Your task to perform on an android device: find photos in the google photos app Image 0: 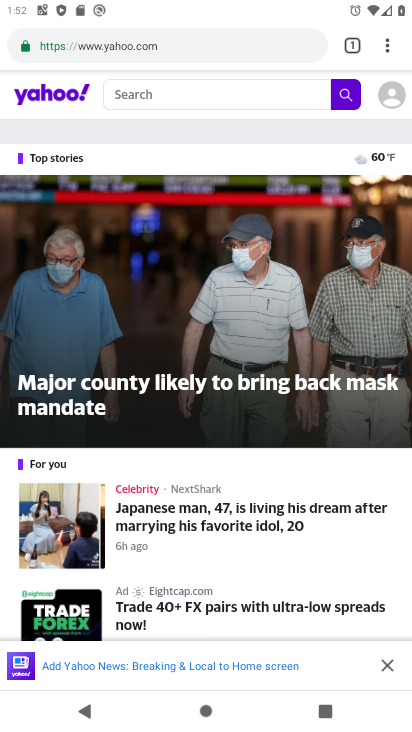
Step 0: press home button
Your task to perform on an android device: find photos in the google photos app Image 1: 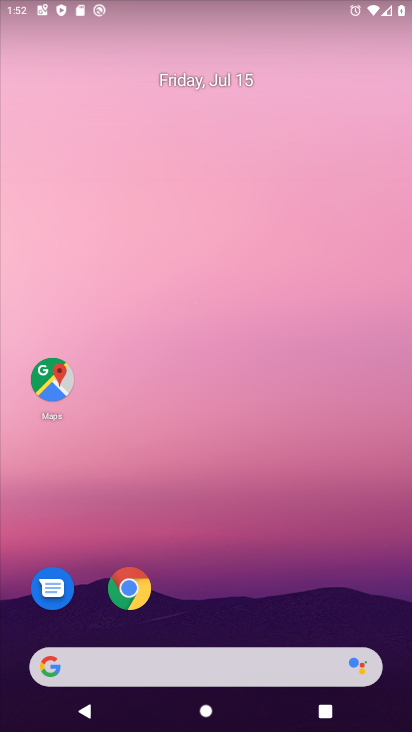
Step 1: drag from (198, 668) to (183, 201)
Your task to perform on an android device: find photos in the google photos app Image 2: 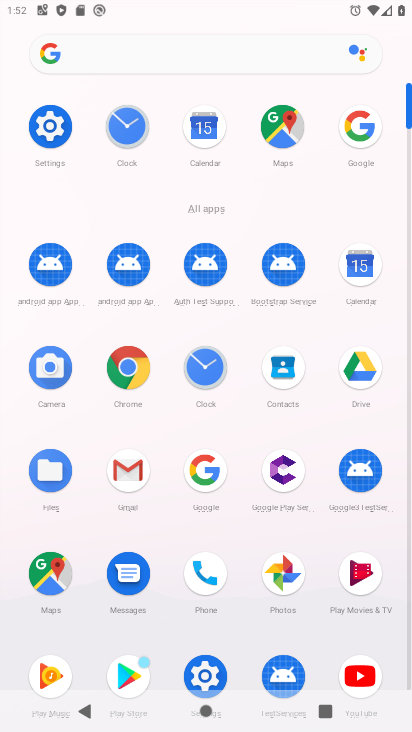
Step 2: click (284, 572)
Your task to perform on an android device: find photos in the google photos app Image 3: 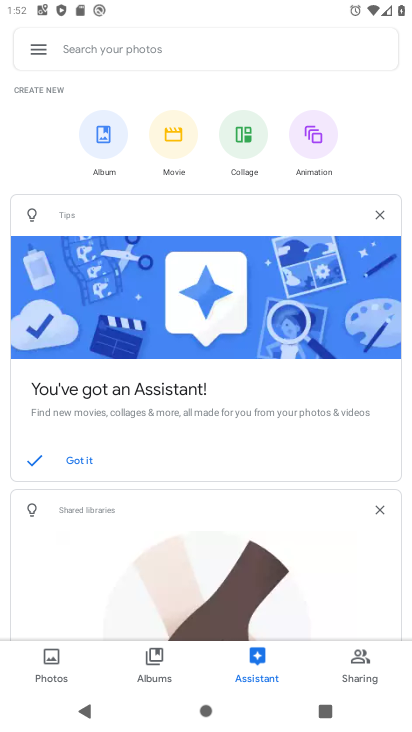
Step 3: click (53, 665)
Your task to perform on an android device: find photos in the google photos app Image 4: 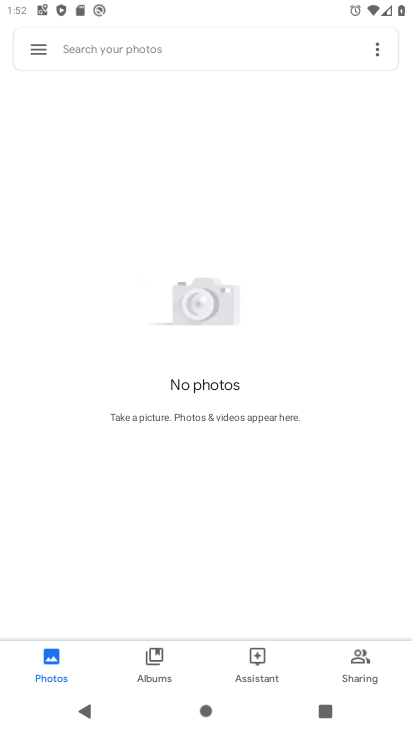
Step 4: click (160, 656)
Your task to perform on an android device: find photos in the google photos app Image 5: 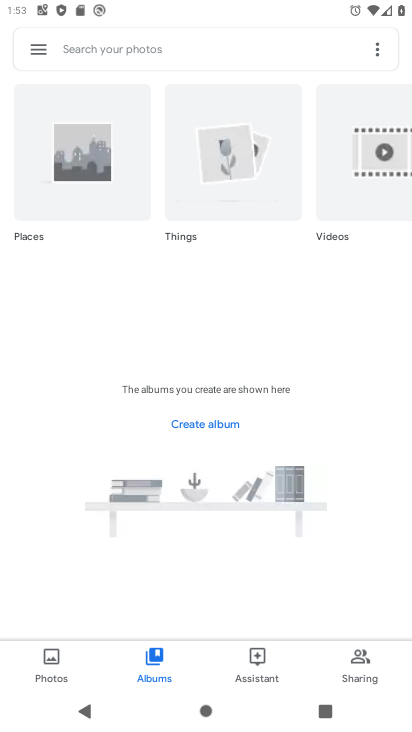
Step 5: click (82, 163)
Your task to perform on an android device: find photos in the google photos app Image 6: 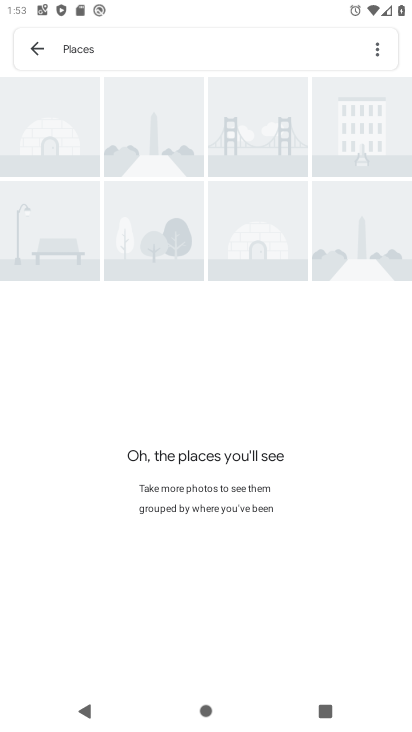
Step 6: press back button
Your task to perform on an android device: find photos in the google photos app Image 7: 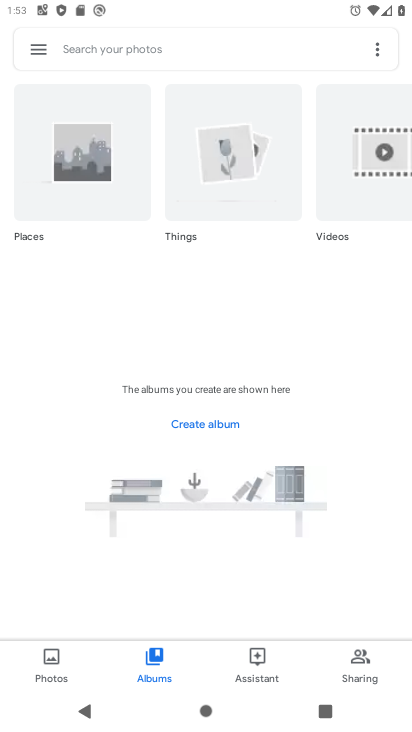
Step 7: drag from (298, 178) to (140, 191)
Your task to perform on an android device: find photos in the google photos app Image 8: 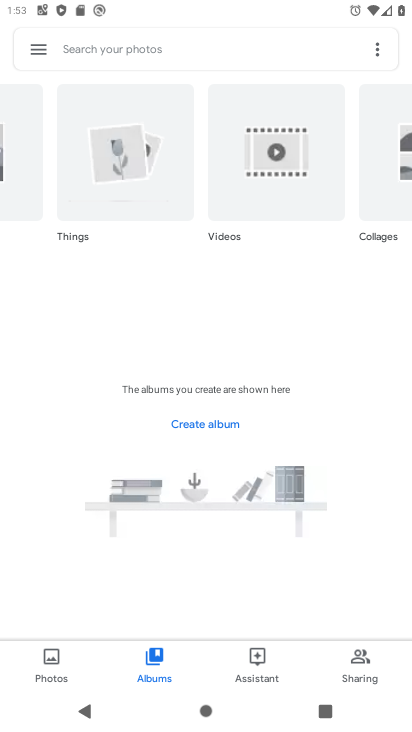
Step 8: drag from (302, 160) to (103, 203)
Your task to perform on an android device: find photos in the google photos app Image 9: 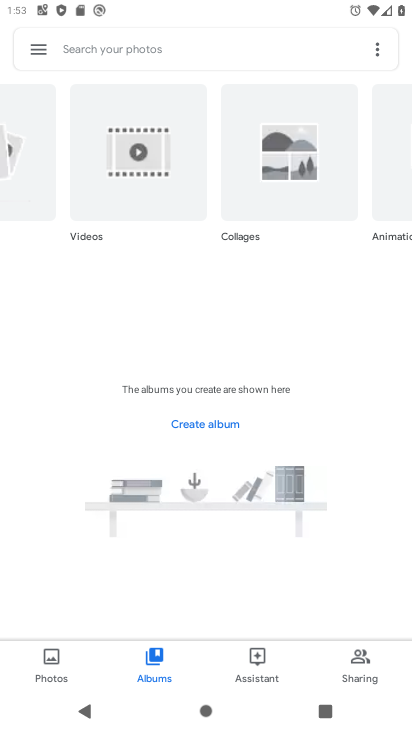
Step 9: click (358, 153)
Your task to perform on an android device: find photos in the google photos app Image 10: 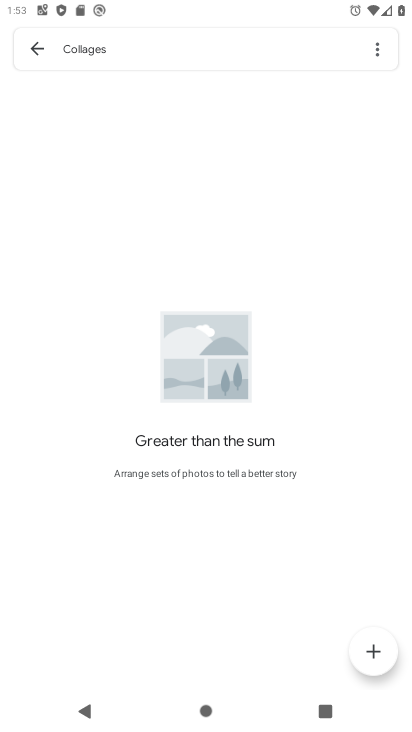
Step 10: task complete